Your task to perform on an android device: Open Google Image 0: 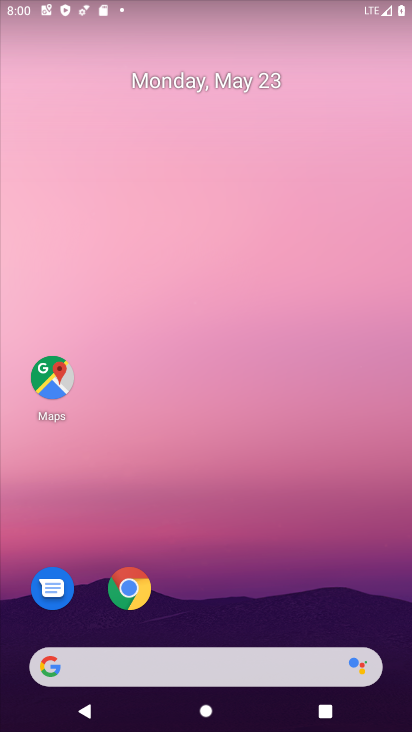
Step 0: drag from (393, 683) to (355, 77)
Your task to perform on an android device: Open Google Image 1: 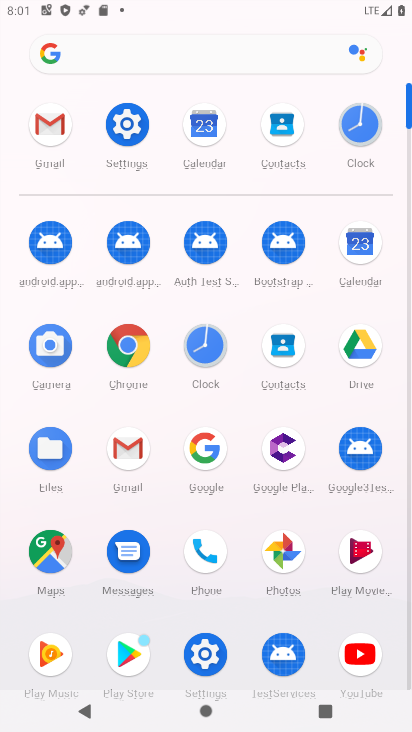
Step 1: click (207, 452)
Your task to perform on an android device: Open Google Image 2: 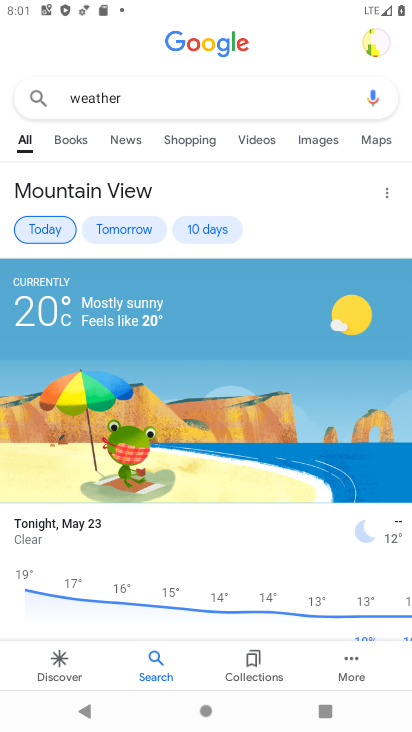
Step 2: task complete